Your task to perform on an android device: Go to network settings Image 0: 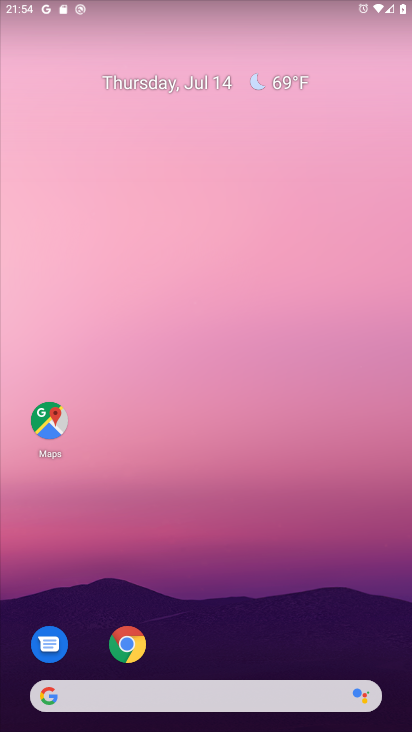
Step 0: drag from (204, 0) to (263, 679)
Your task to perform on an android device: Go to network settings Image 1: 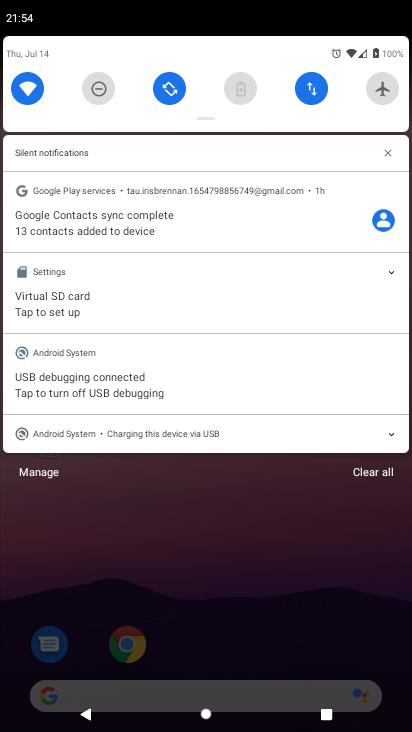
Step 1: click (309, 100)
Your task to perform on an android device: Go to network settings Image 2: 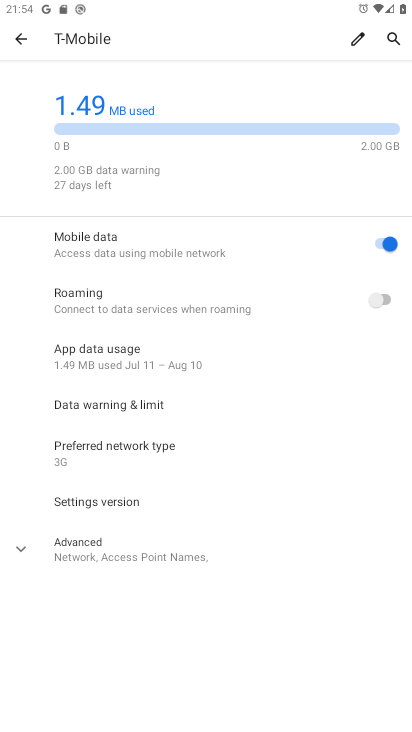
Step 2: task complete